Your task to perform on an android device: check the backup settings in the google photos Image 0: 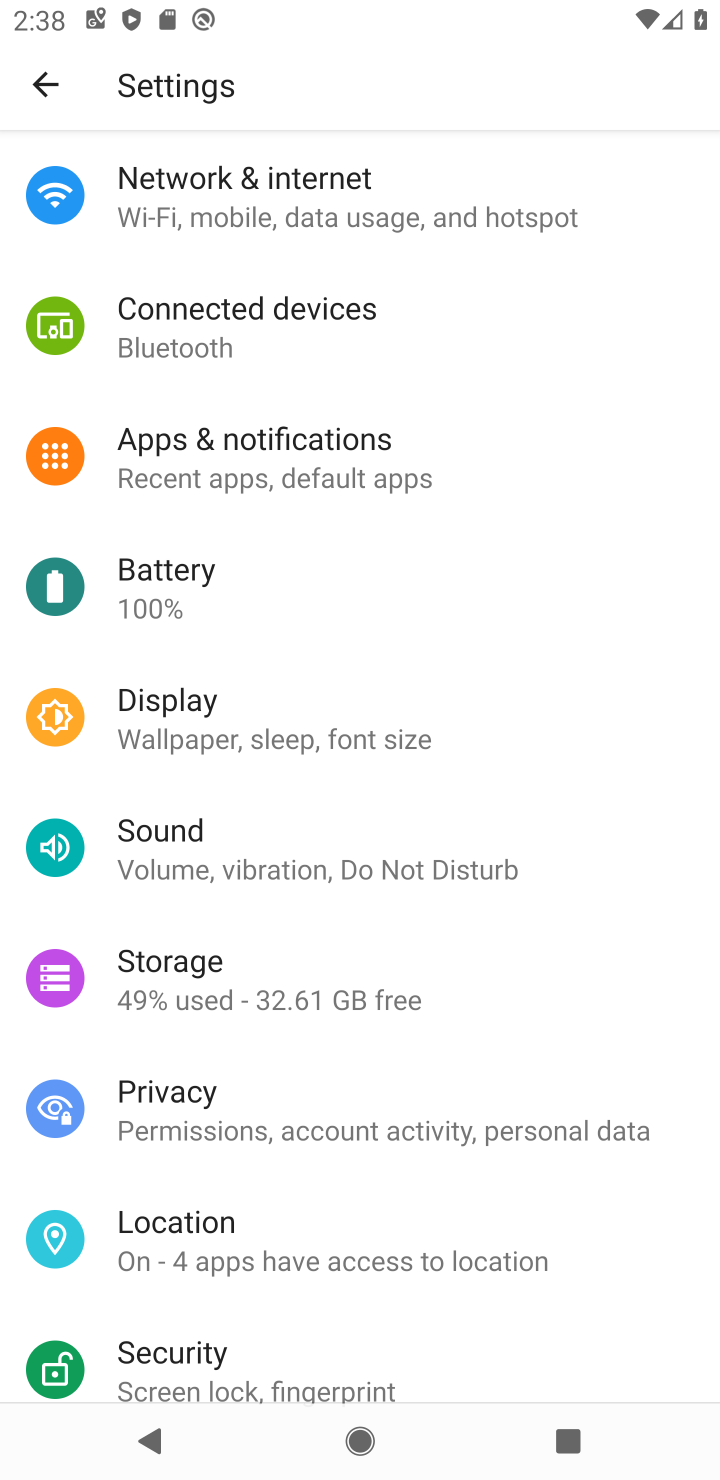
Step 0: press home button
Your task to perform on an android device: check the backup settings in the google photos Image 1: 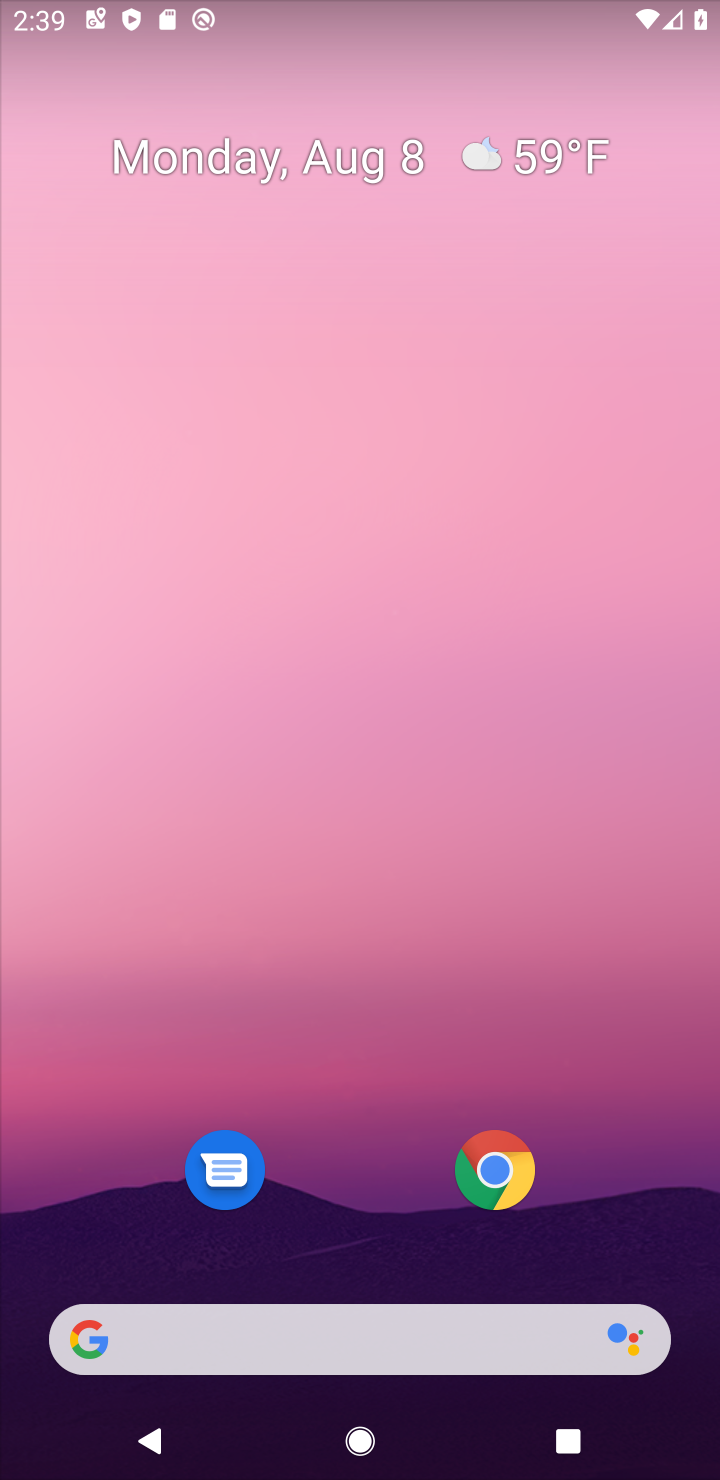
Step 1: drag from (328, 981) to (344, 398)
Your task to perform on an android device: check the backup settings in the google photos Image 2: 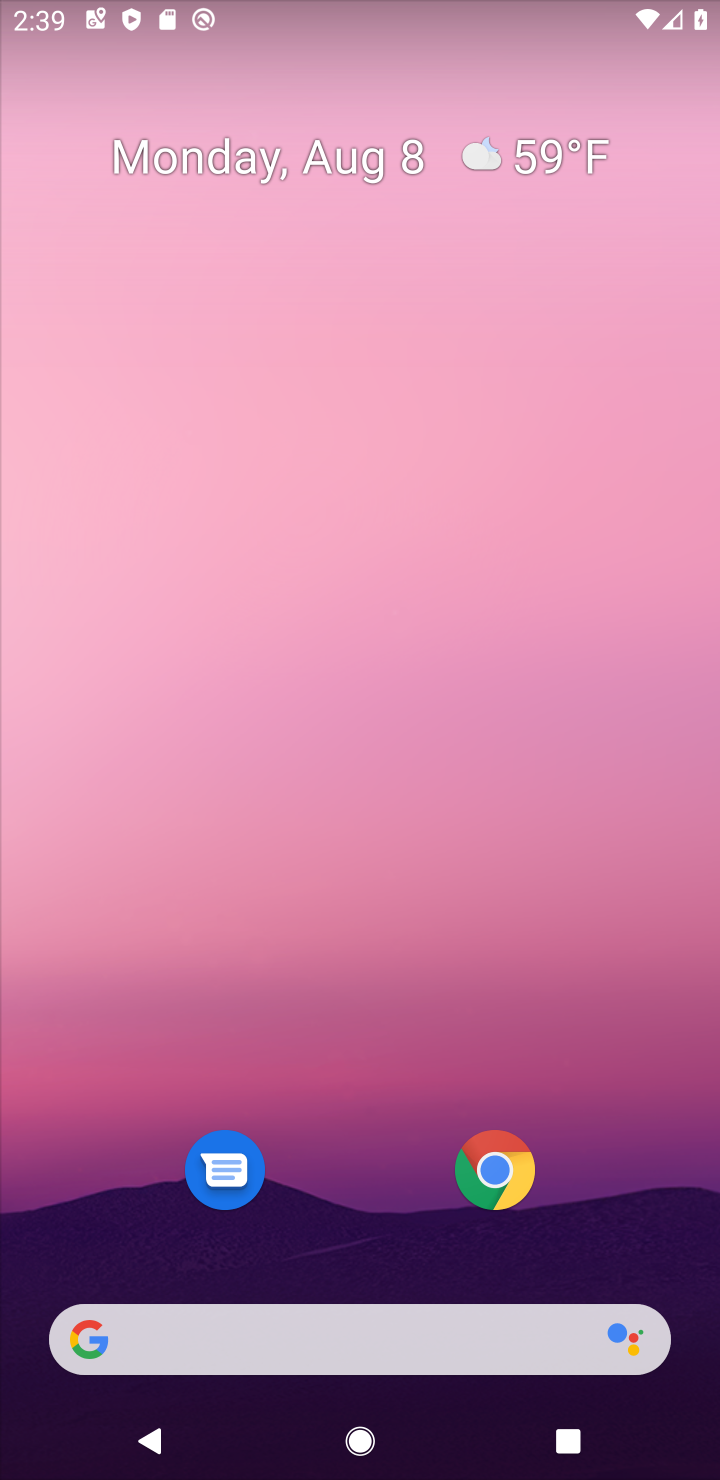
Step 2: drag from (373, 508) to (373, 408)
Your task to perform on an android device: check the backup settings in the google photos Image 3: 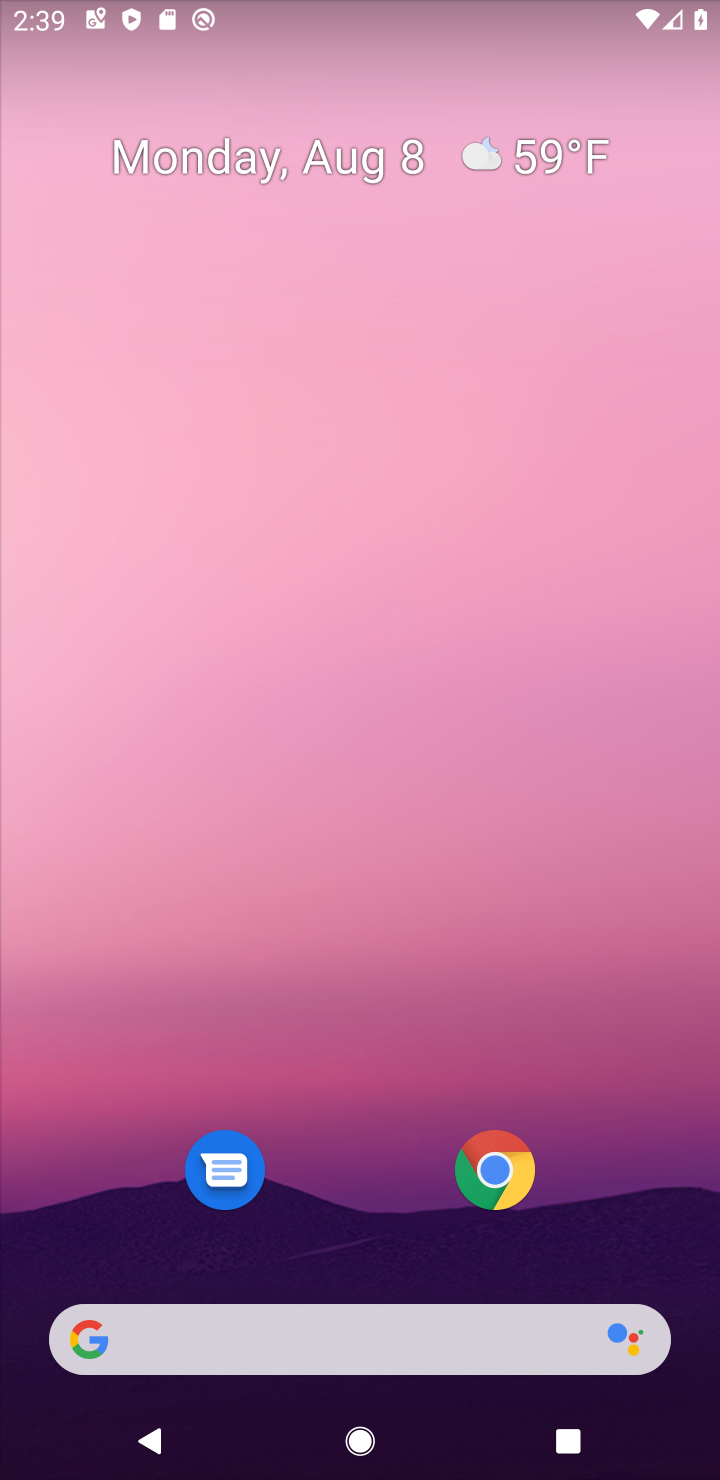
Step 3: drag from (373, 1157) to (370, 396)
Your task to perform on an android device: check the backup settings in the google photos Image 4: 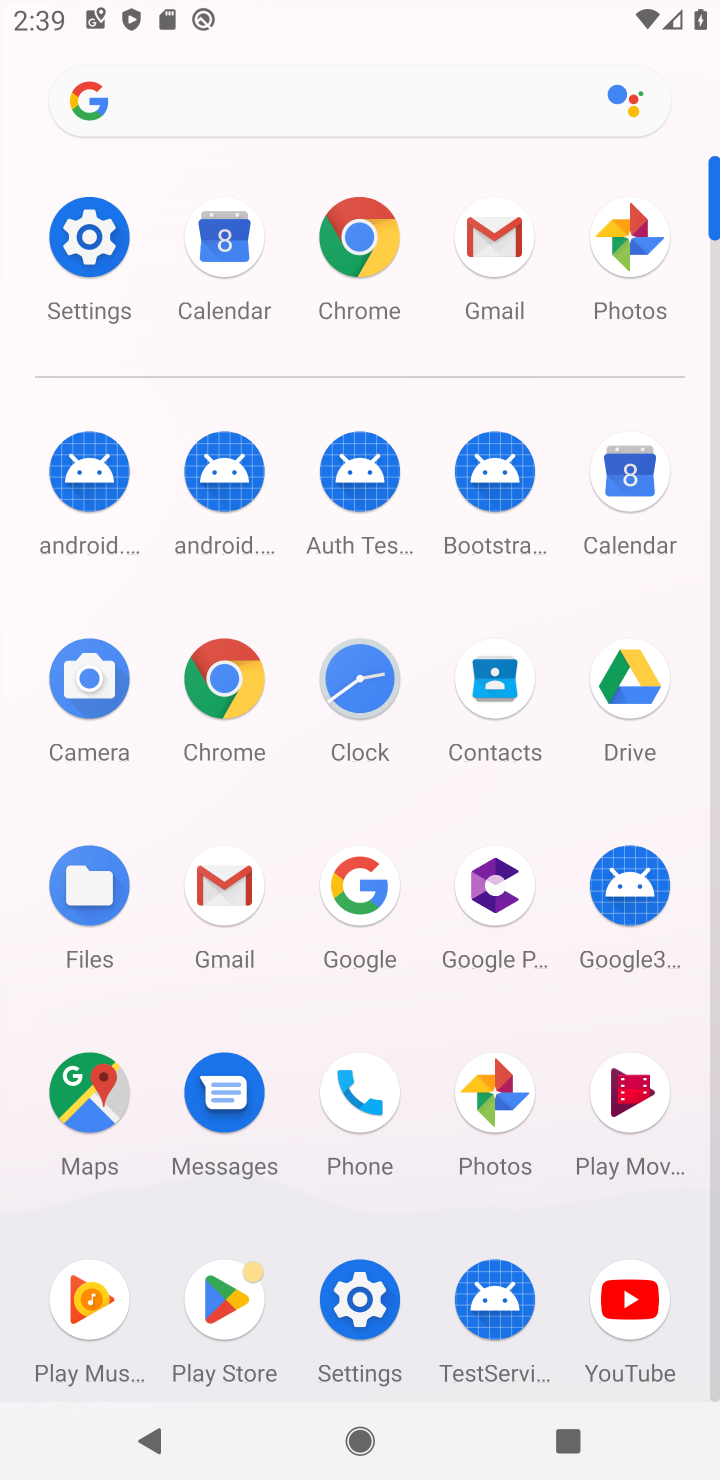
Step 4: click (637, 256)
Your task to perform on an android device: check the backup settings in the google photos Image 5: 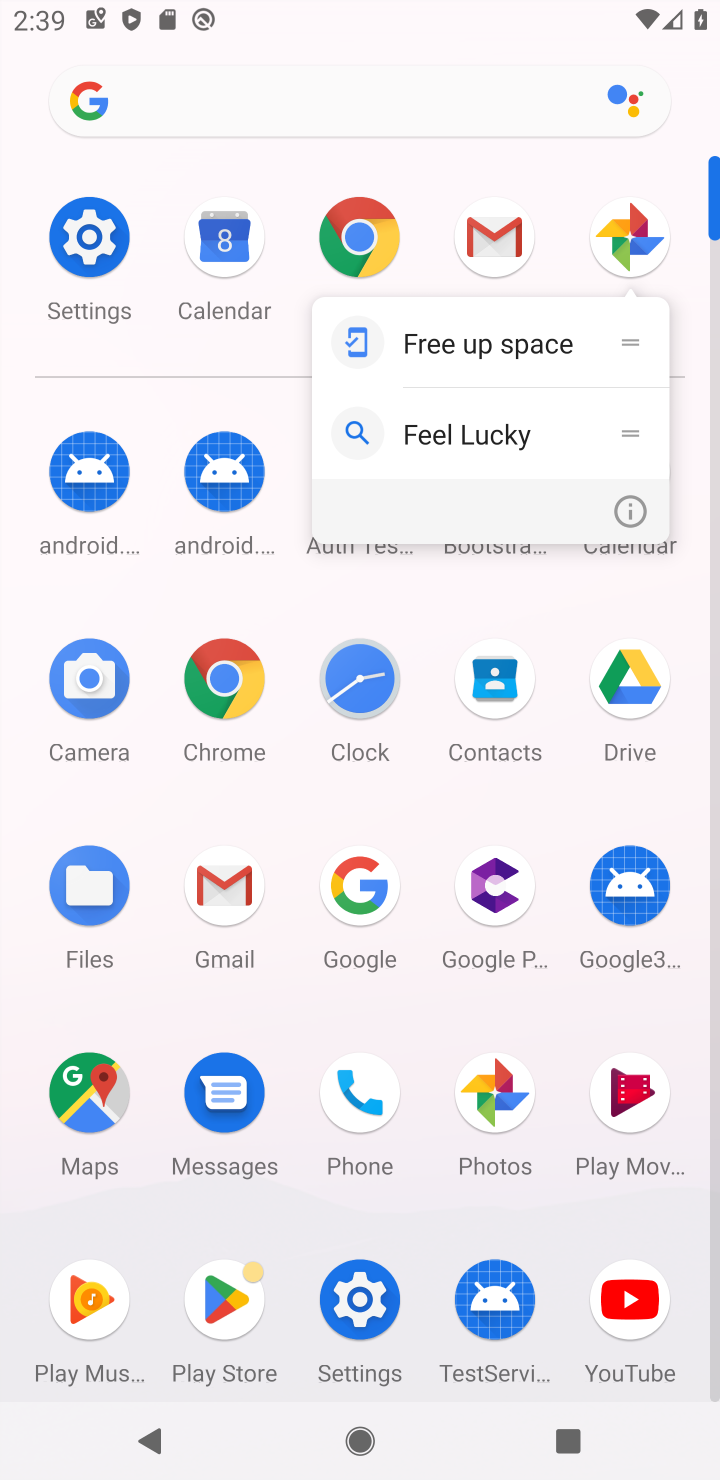
Step 5: click (637, 256)
Your task to perform on an android device: check the backup settings in the google photos Image 6: 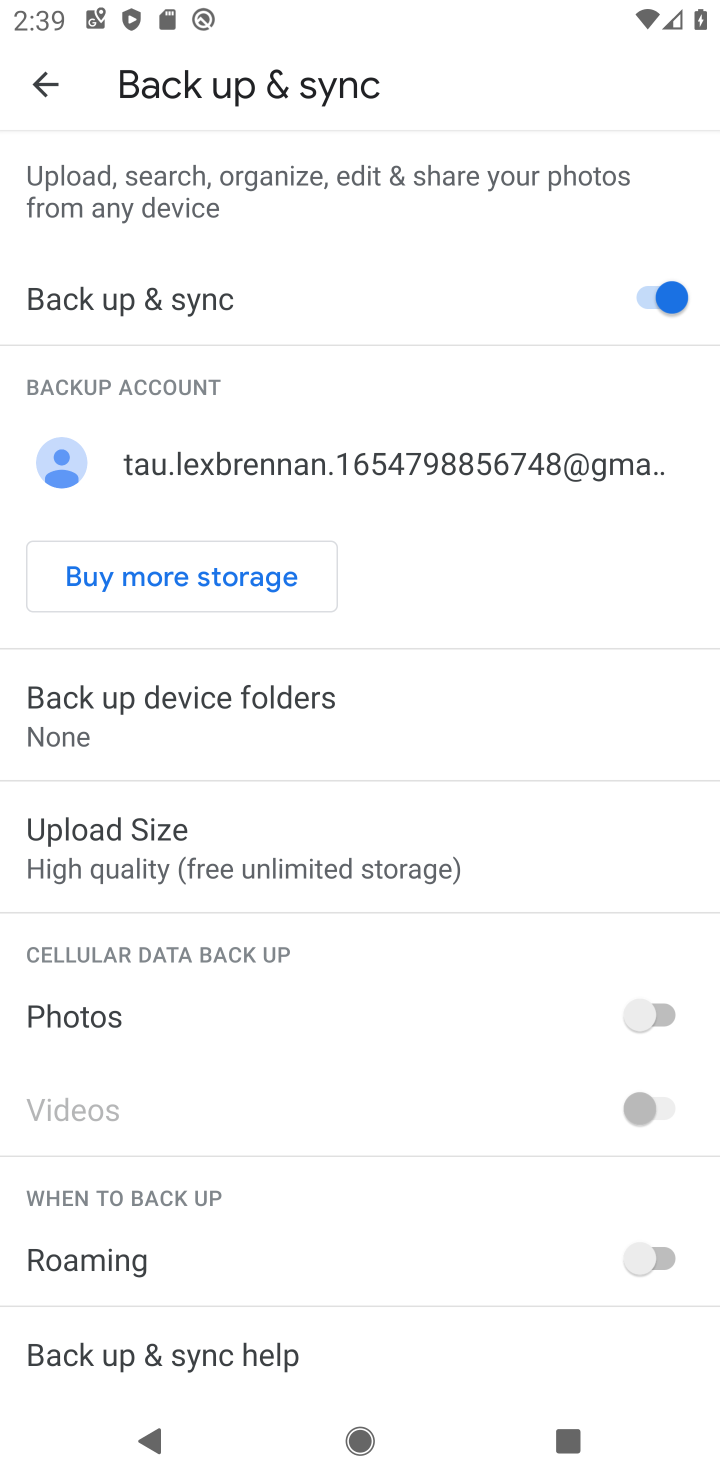
Step 6: task complete